Your task to perform on an android device: Open Maps and search for coffee Image 0: 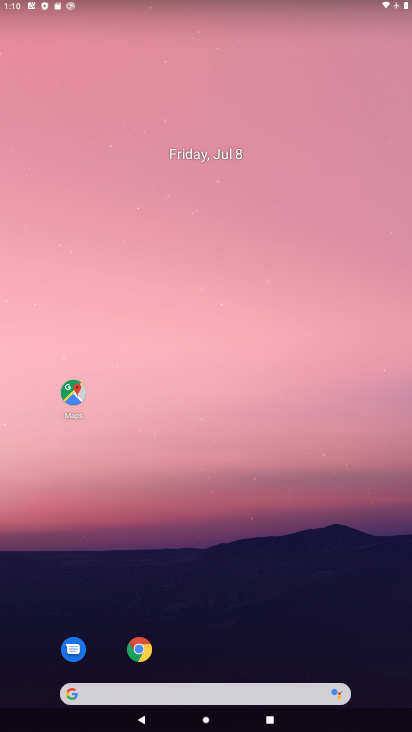
Step 0: click (77, 391)
Your task to perform on an android device: Open Maps and search for coffee Image 1: 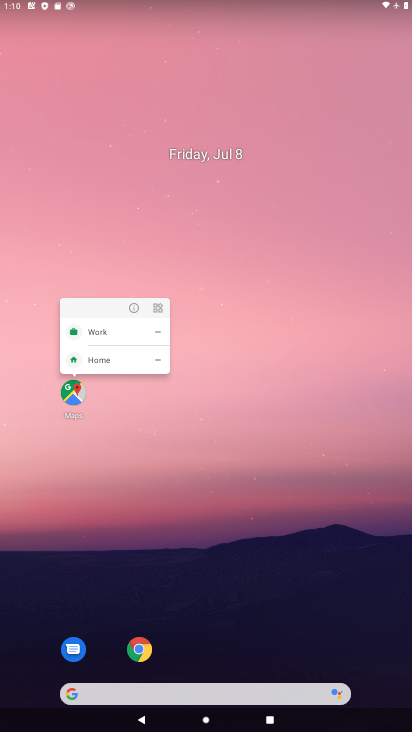
Step 1: click (77, 392)
Your task to perform on an android device: Open Maps and search for coffee Image 2: 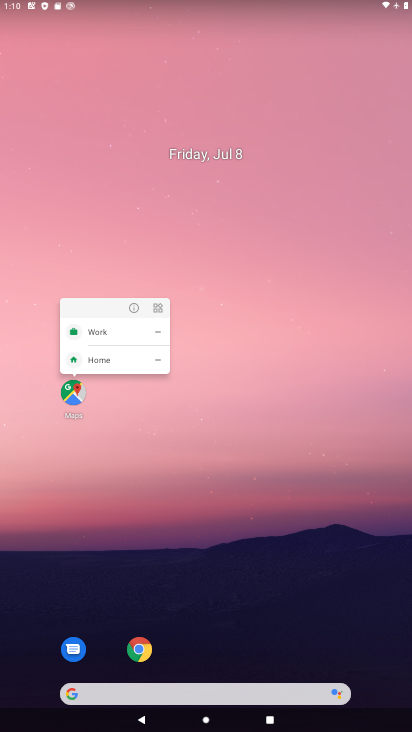
Step 2: click (67, 399)
Your task to perform on an android device: Open Maps and search for coffee Image 3: 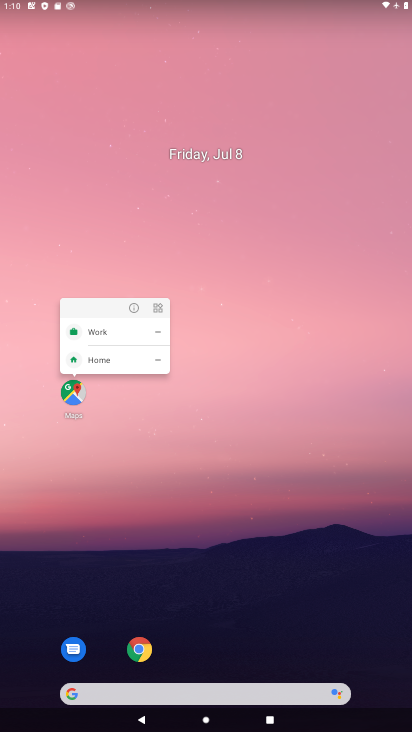
Step 3: click (59, 395)
Your task to perform on an android device: Open Maps and search for coffee Image 4: 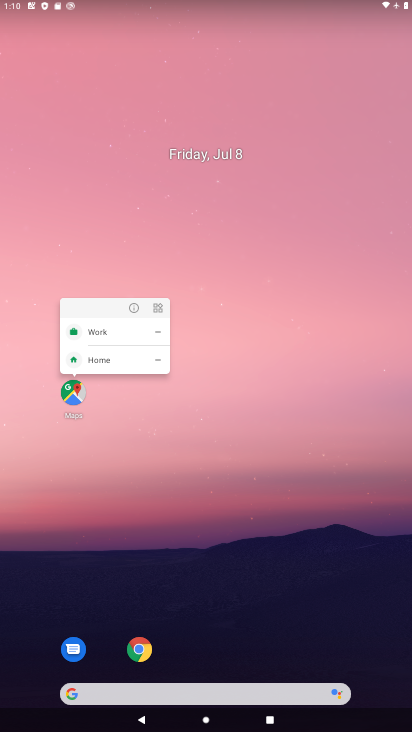
Step 4: task complete